Your task to perform on an android device: Search for Italian restaurants on Maps Image 0: 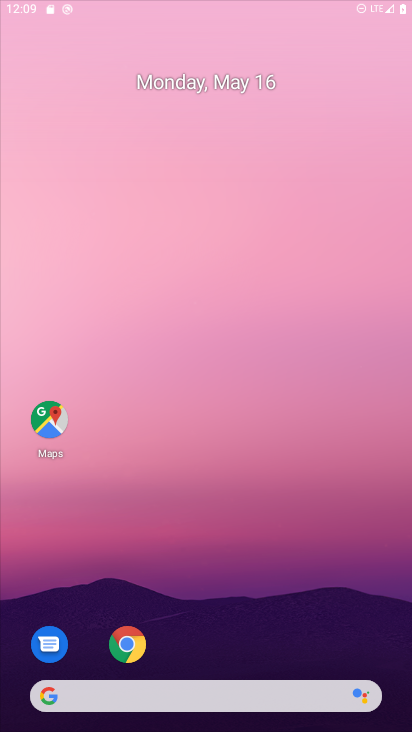
Step 0: drag from (243, 428) to (322, 191)
Your task to perform on an android device: Search for Italian restaurants on Maps Image 1: 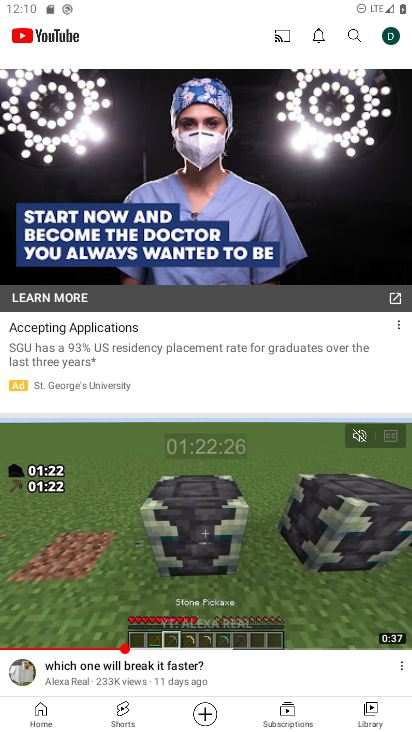
Step 1: press home button
Your task to perform on an android device: Search for Italian restaurants on Maps Image 2: 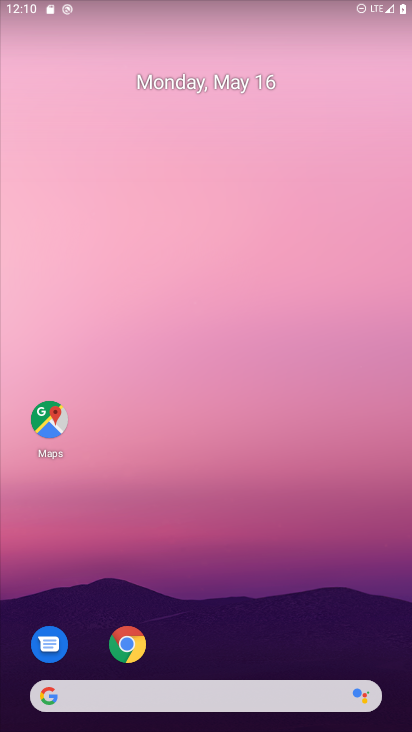
Step 2: drag from (208, 697) to (289, 257)
Your task to perform on an android device: Search for Italian restaurants on Maps Image 3: 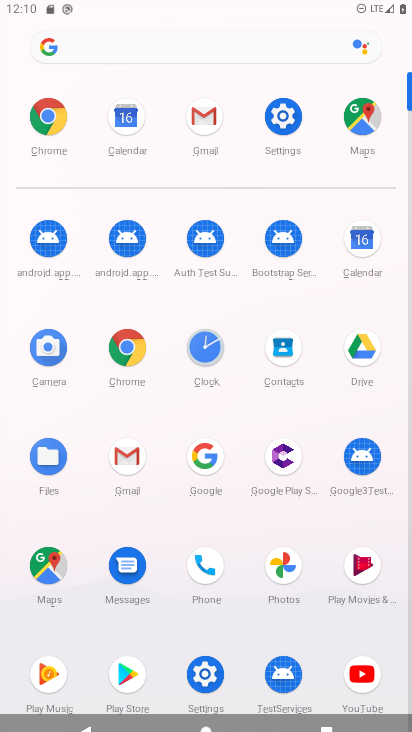
Step 3: click (353, 128)
Your task to perform on an android device: Search for Italian restaurants on Maps Image 4: 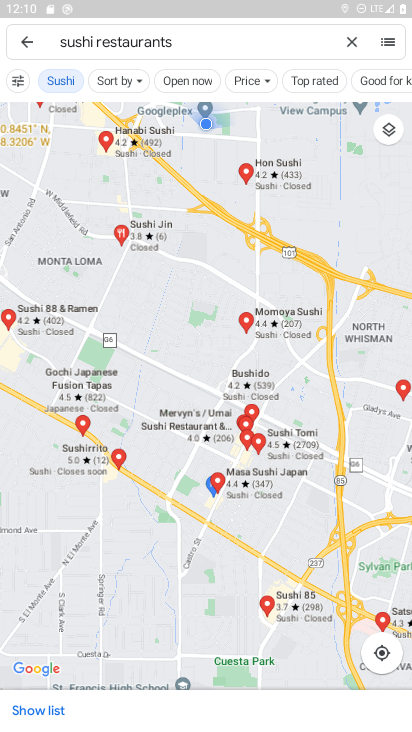
Step 4: click (349, 37)
Your task to perform on an android device: Search for Italian restaurants on Maps Image 5: 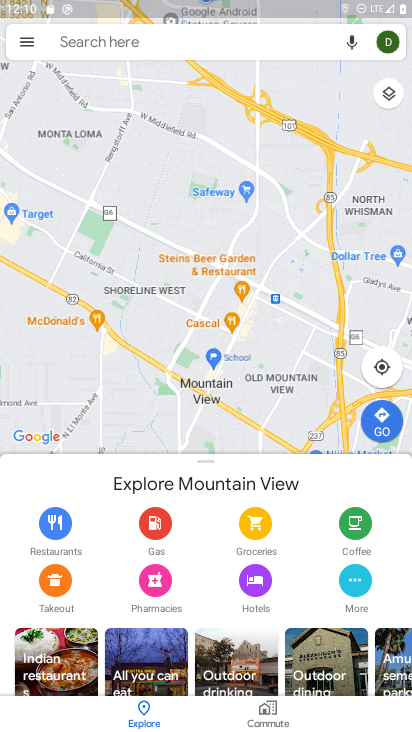
Step 5: click (220, 37)
Your task to perform on an android device: Search for Italian restaurants on Maps Image 6: 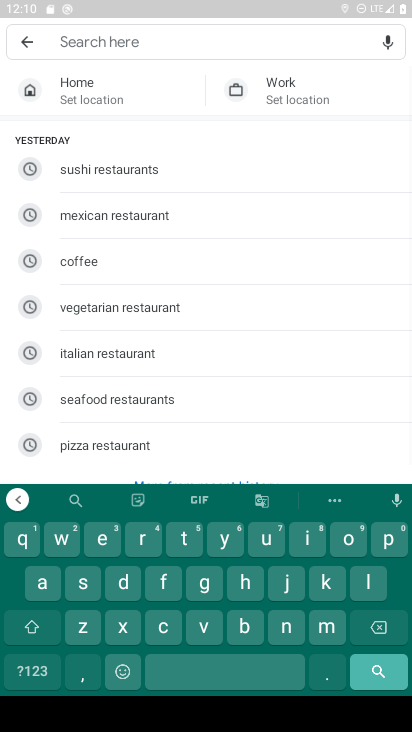
Step 6: click (305, 538)
Your task to perform on an android device: Search for Italian restaurants on Maps Image 7: 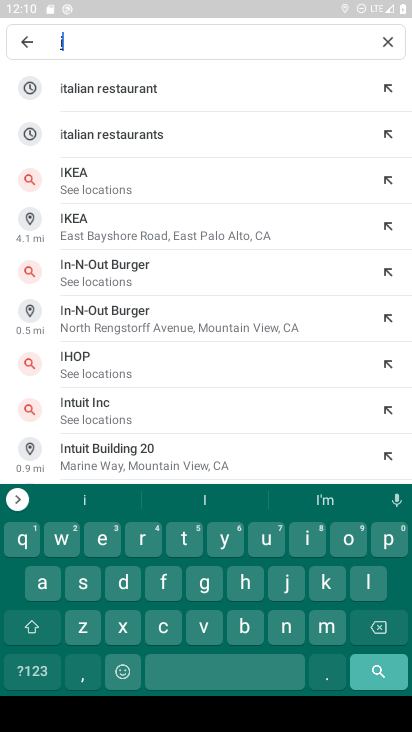
Step 7: click (182, 535)
Your task to perform on an android device: Search for Italian restaurants on Maps Image 8: 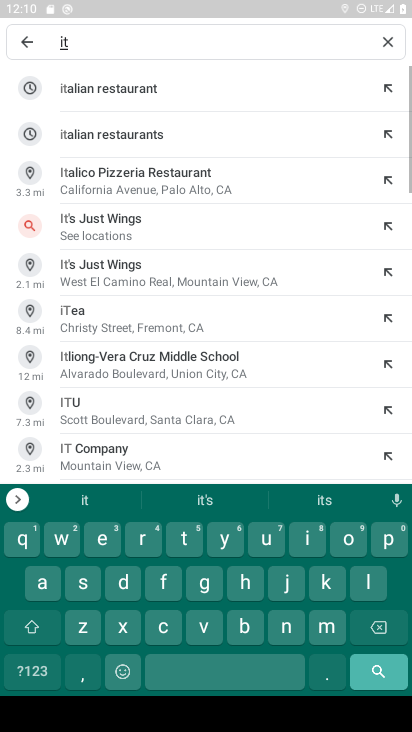
Step 8: click (148, 88)
Your task to perform on an android device: Search for Italian restaurants on Maps Image 9: 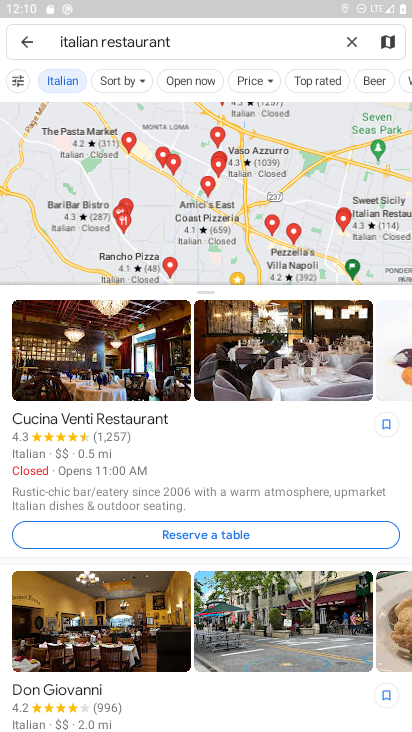
Step 9: click (173, 218)
Your task to perform on an android device: Search for Italian restaurants on Maps Image 10: 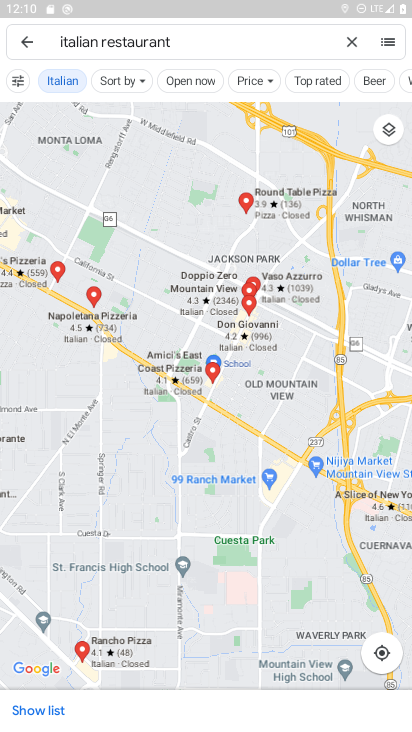
Step 10: task complete